Your task to perform on an android device: check storage Image 0: 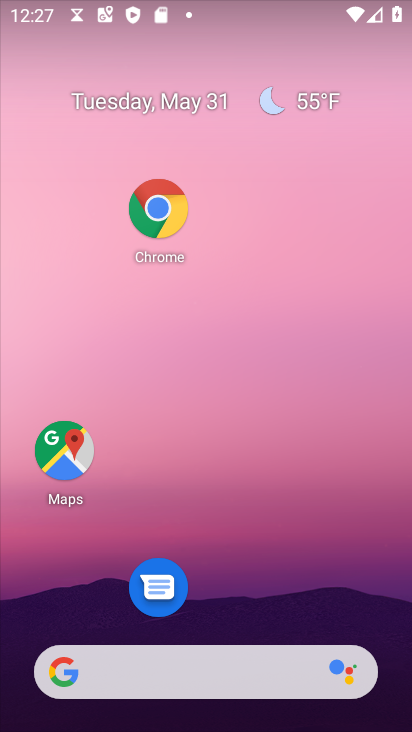
Step 0: drag from (312, 618) to (255, 133)
Your task to perform on an android device: check storage Image 1: 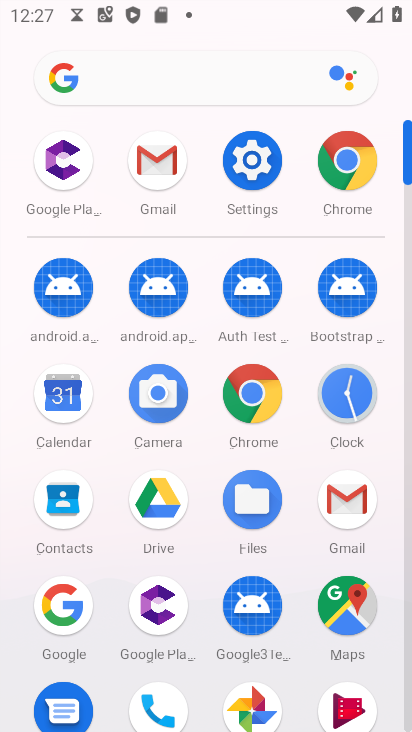
Step 1: click (264, 151)
Your task to perform on an android device: check storage Image 2: 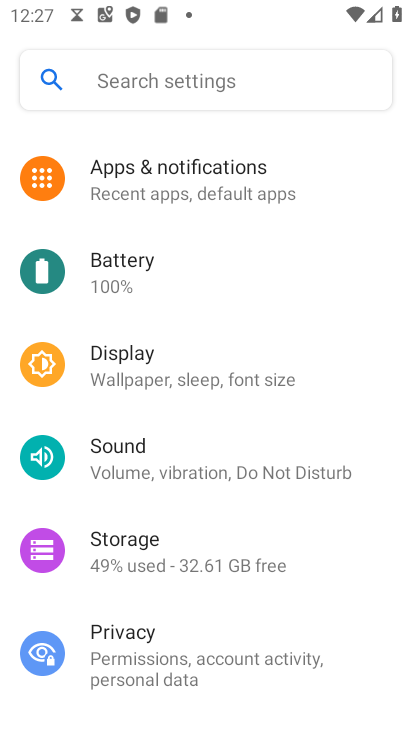
Step 2: click (143, 549)
Your task to perform on an android device: check storage Image 3: 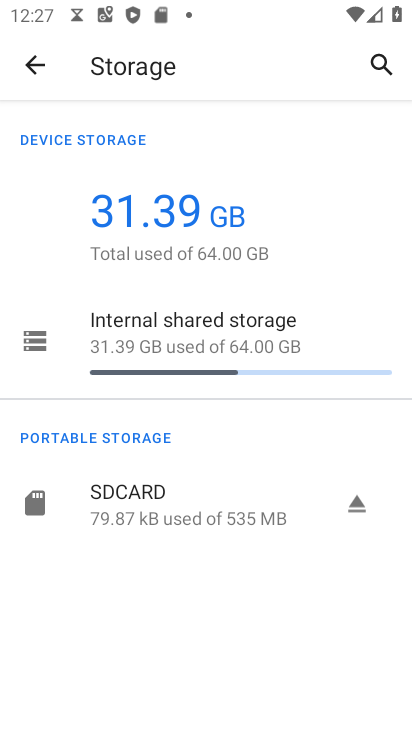
Step 3: task complete